Your task to perform on an android device: turn off javascript in the chrome app Image 0: 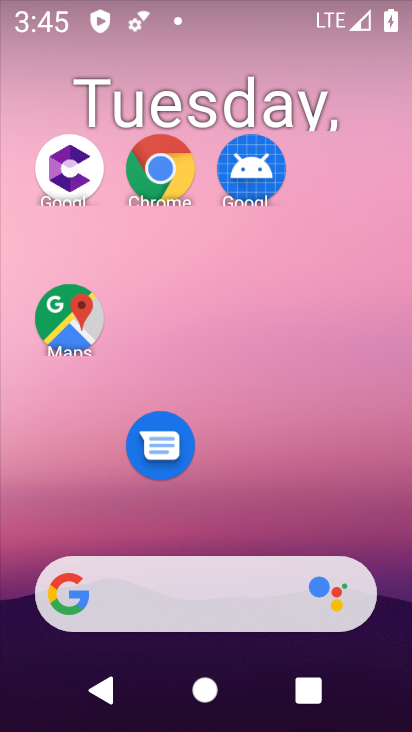
Step 0: drag from (272, 524) to (409, 43)
Your task to perform on an android device: turn off javascript in the chrome app Image 1: 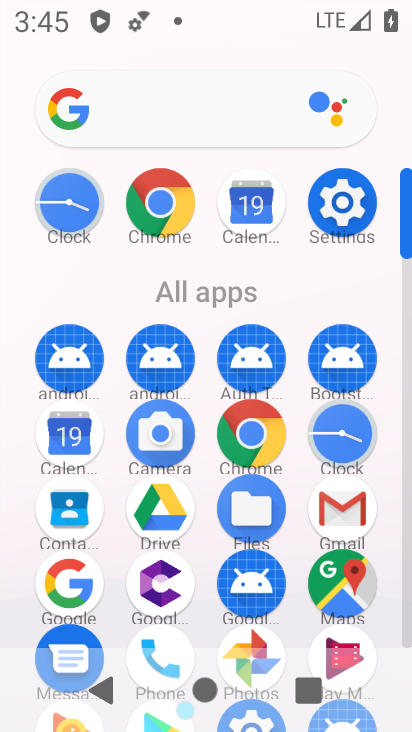
Step 1: click (160, 207)
Your task to perform on an android device: turn off javascript in the chrome app Image 2: 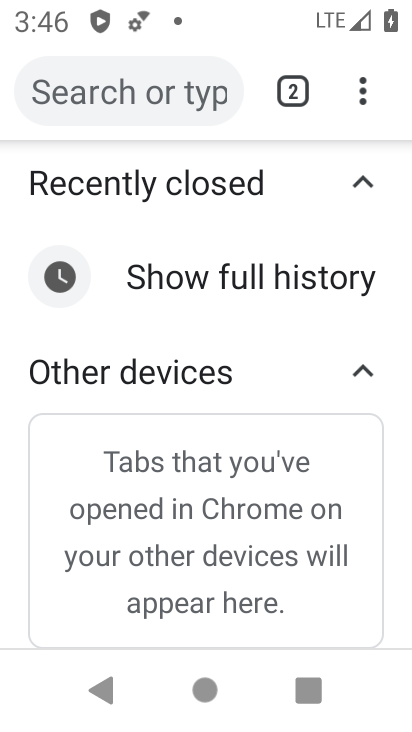
Step 2: click (363, 86)
Your task to perform on an android device: turn off javascript in the chrome app Image 3: 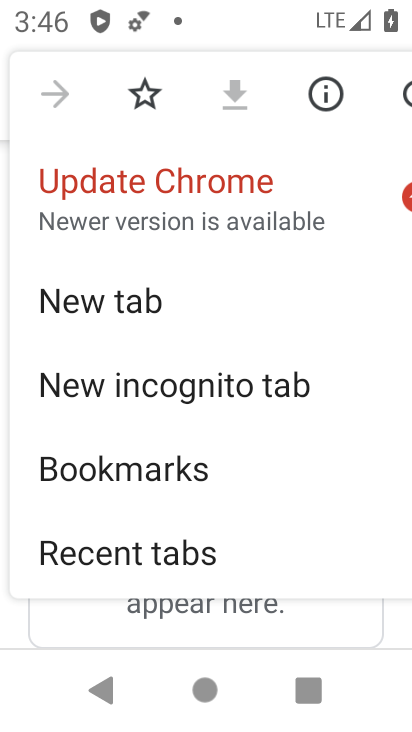
Step 3: drag from (253, 546) to (334, 17)
Your task to perform on an android device: turn off javascript in the chrome app Image 4: 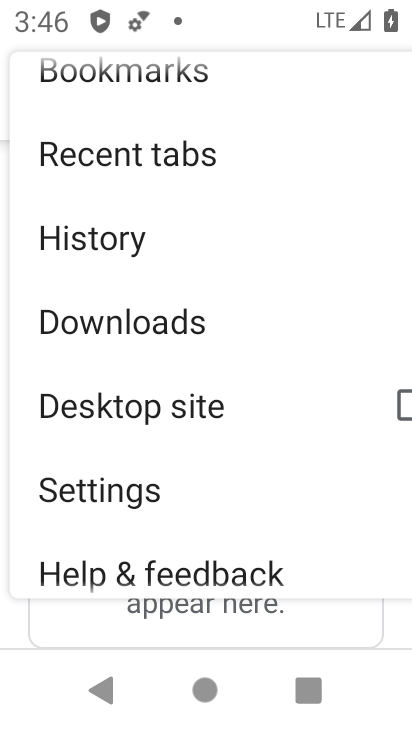
Step 4: click (85, 491)
Your task to perform on an android device: turn off javascript in the chrome app Image 5: 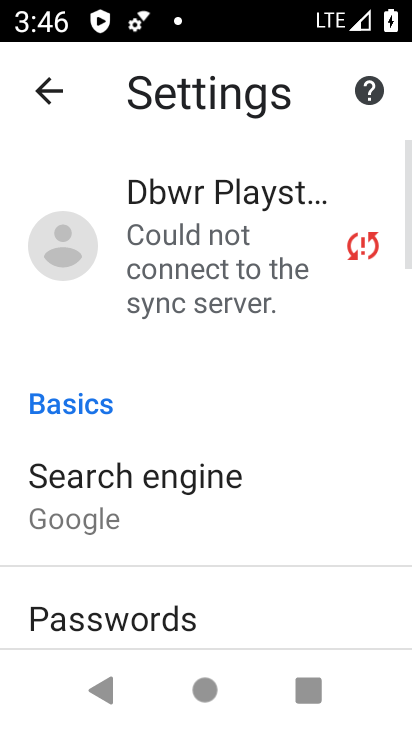
Step 5: drag from (267, 596) to (222, 161)
Your task to perform on an android device: turn off javascript in the chrome app Image 6: 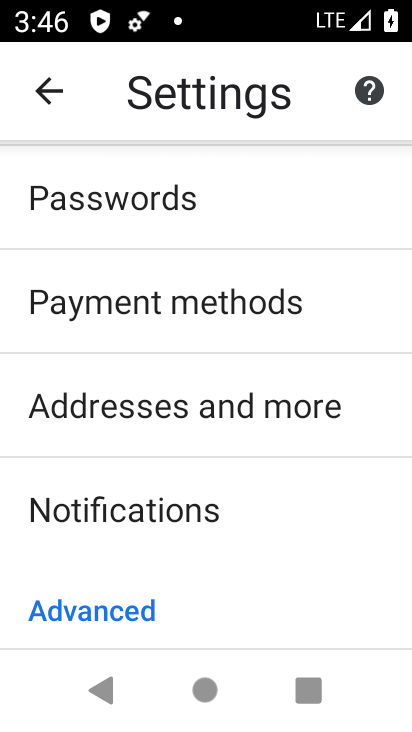
Step 6: drag from (248, 591) to (208, 67)
Your task to perform on an android device: turn off javascript in the chrome app Image 7: 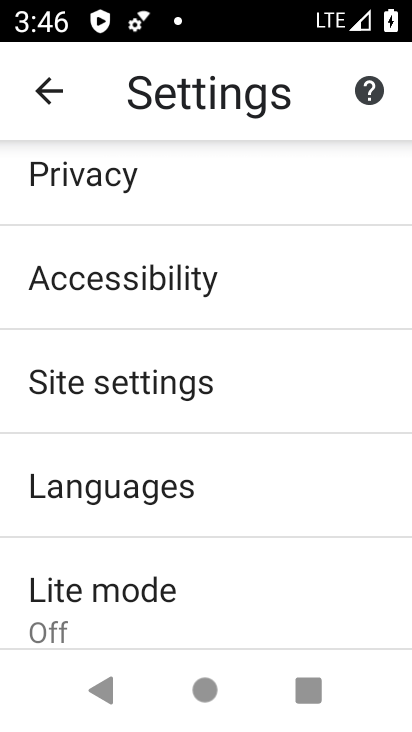
Step 7: click (134, 373)
Your task to perform on an android device: turn off javascript in the chrome app Image 8: 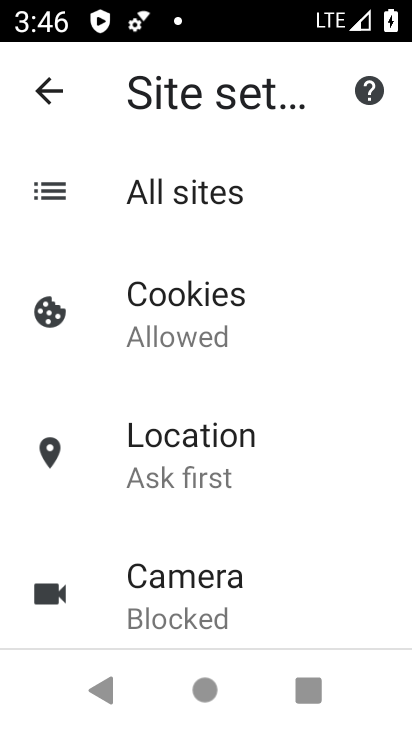
Step 8: drag from (280, 577) to (272, 232)
Your task to perform on an android device: turn off javascript in the chrome app Image 9: 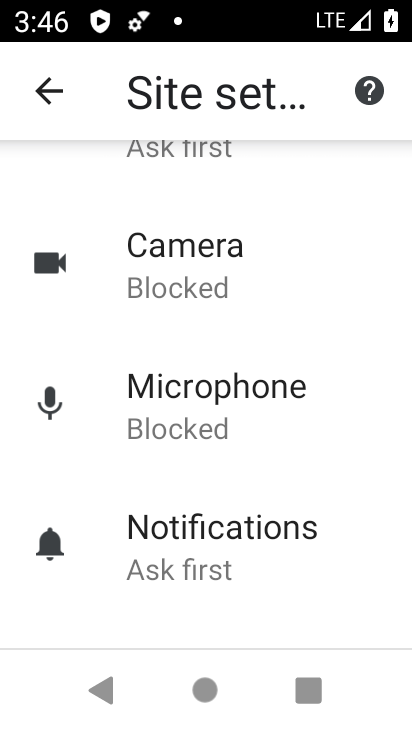
Step 9: drag from (299, 598) to (244, 29)
Your task to perform on an android device: turn off javascript in the chrome app Image 10: 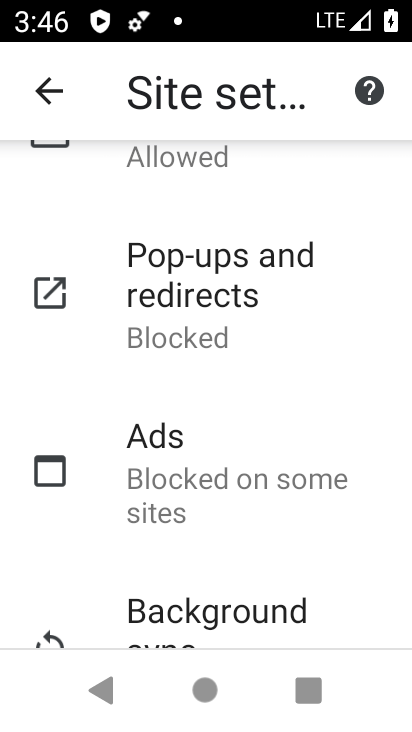
Step 10: drag from (283, 321) to (338, 553)
Your task to perform on an android device: turn off javascript in the chrome app Image 11: 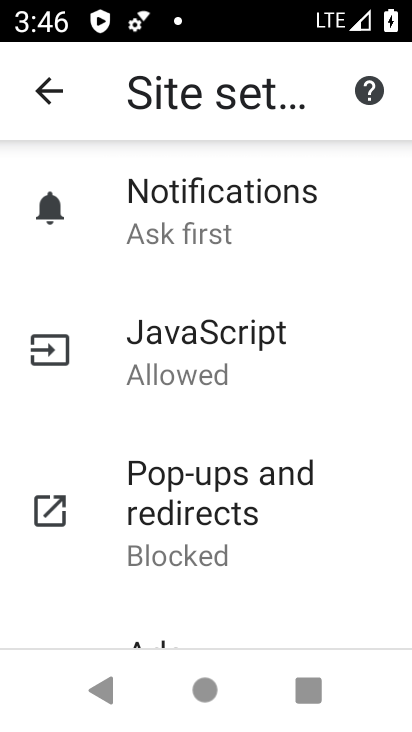
Step 11: click (193, 329)
Your task to perform on an android device: turn off javascript in the chrome app Image 12: 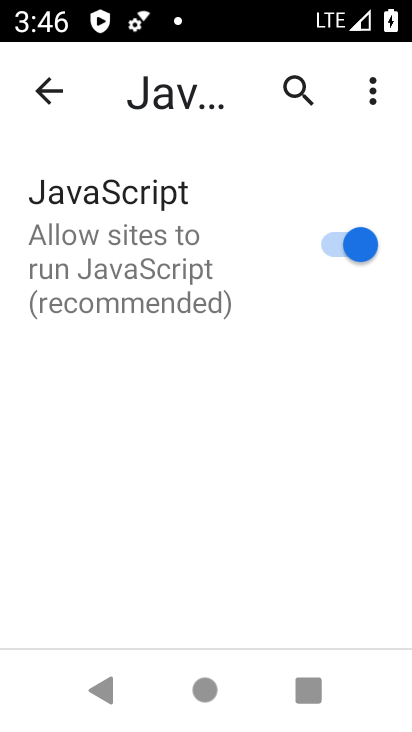
Step 12: click (364, 242)
Your task to perform on an android device: turn off javascript in the chrome app Image 13: 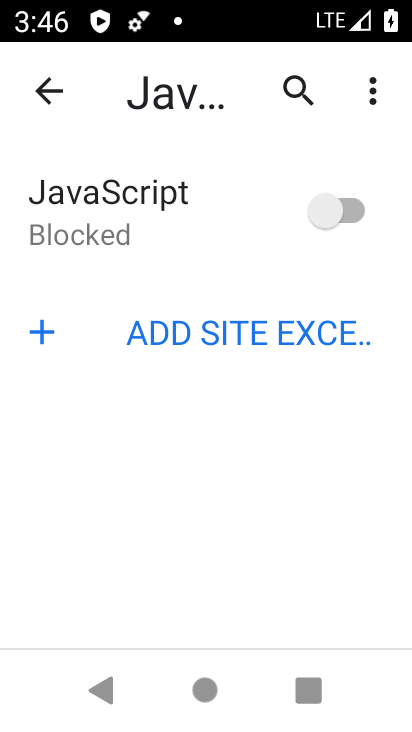
Step 13: task complete